Your task to perform on an android device: find snoozed emails in the gmail app Image 0: 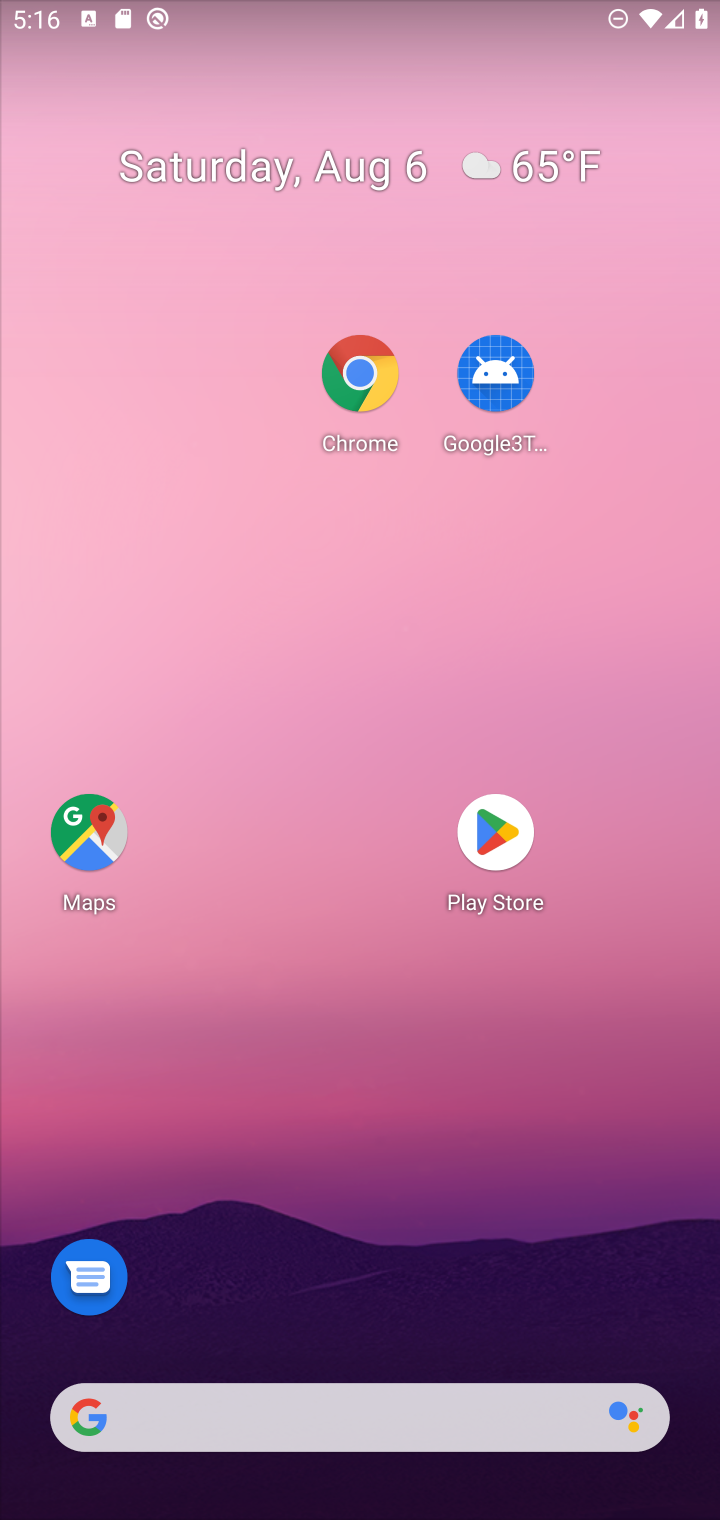
Step 0: click (533, 1414)
Your task to perform on an android device: find snoozed emails in the gmail app Image 1: 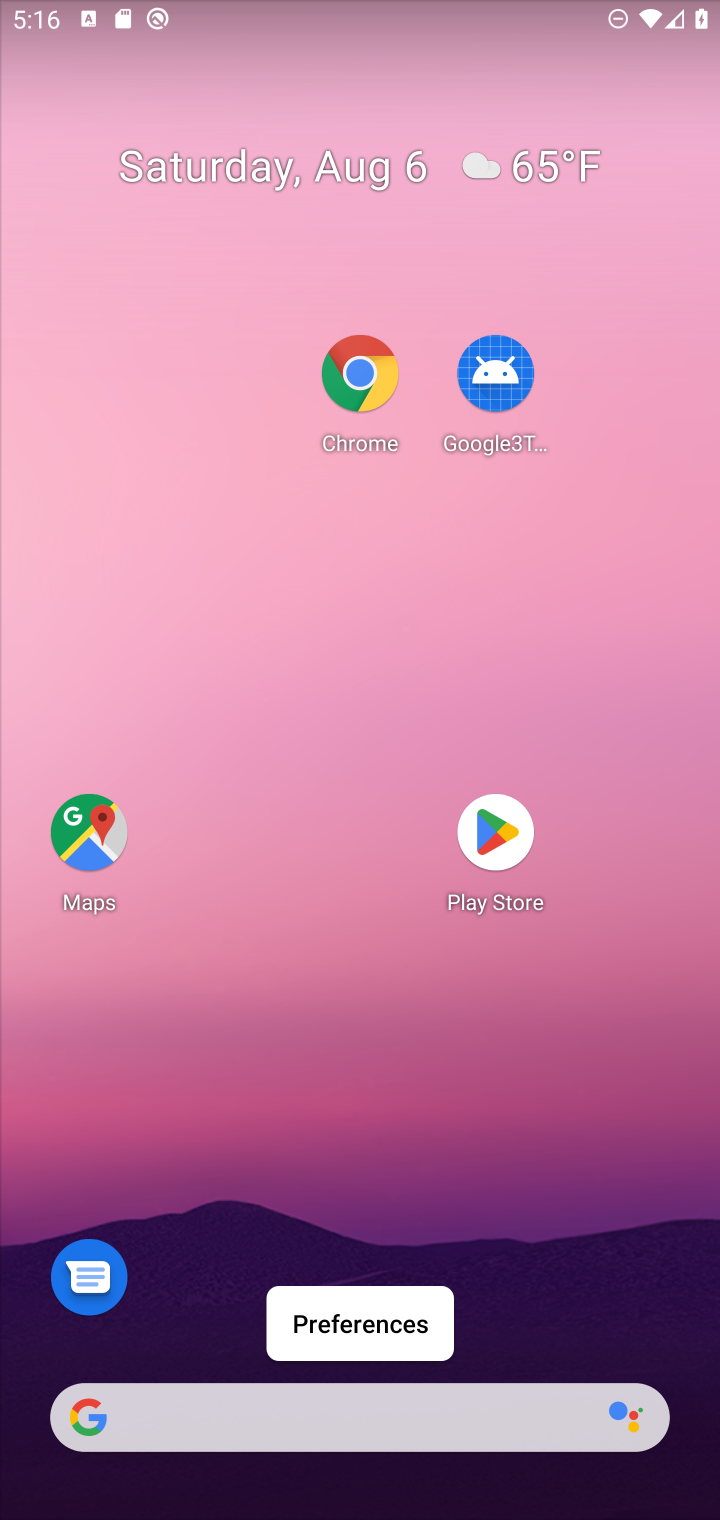
Step 1: drag from (510, 1322) to (561, 110)
Your task to perform on an android device: find snoozed emails in the gmail app Image 2: 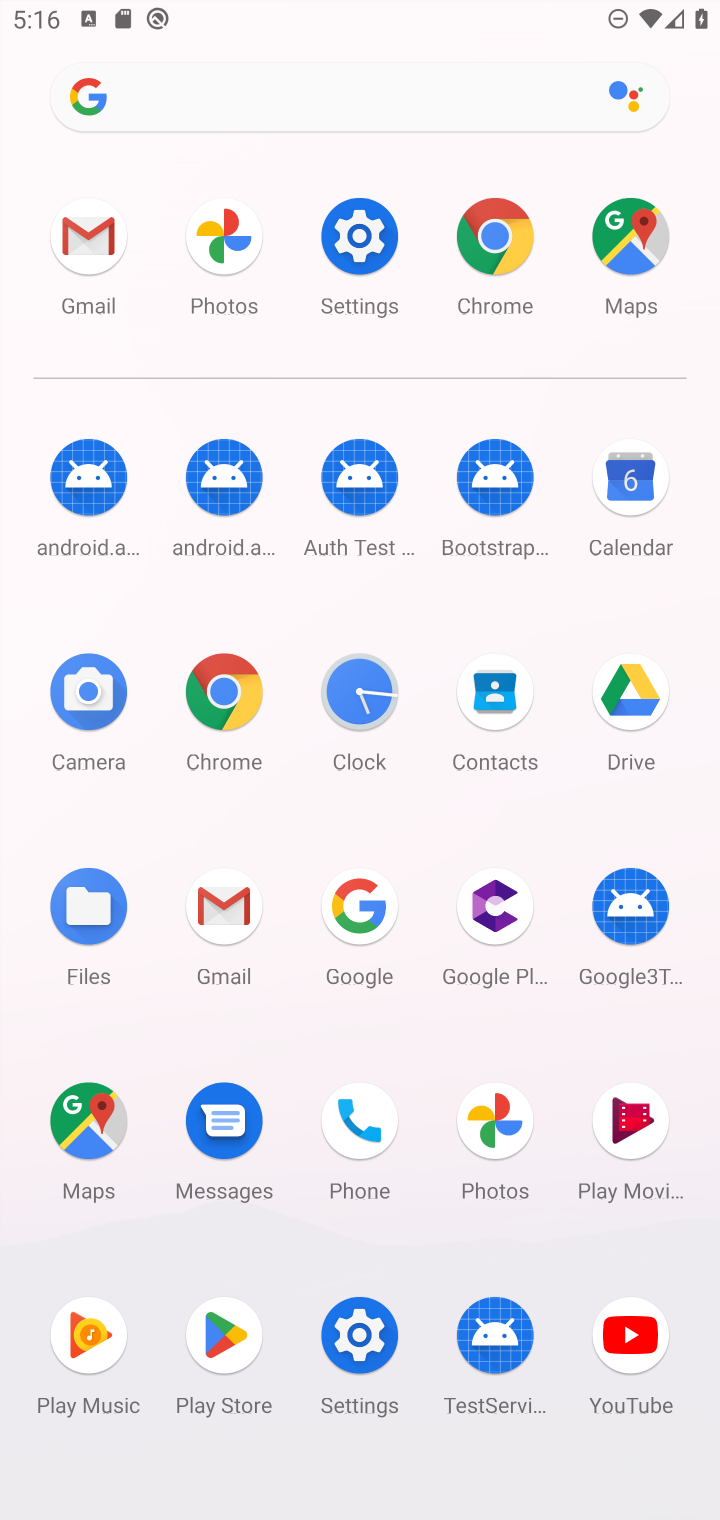
Step 2: click (219, 909)
Your task to perform on an android device: find snoozed emails in the gmail app Image 3: 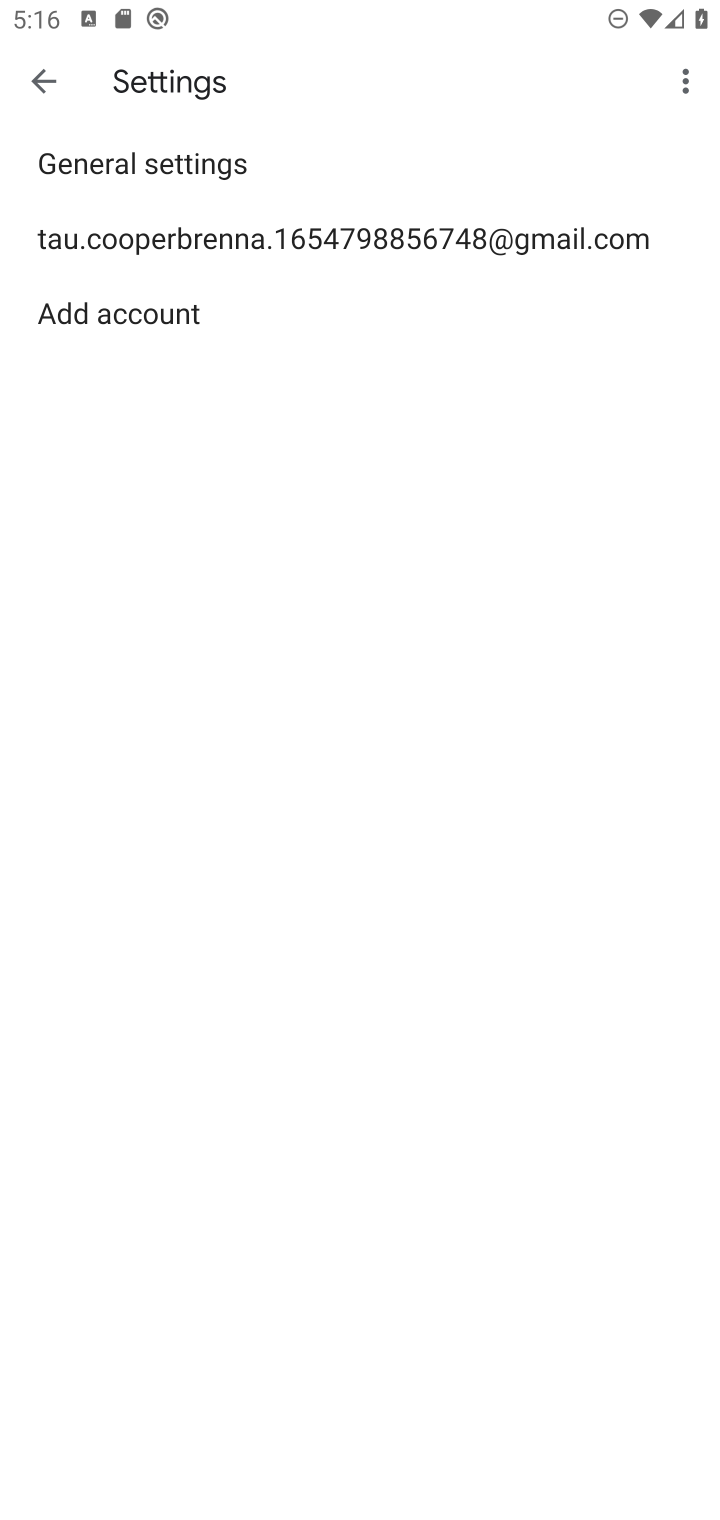
Step 3: press back button
Your task to perform on an android device: find snoozed emails in the gmail app Image 4: 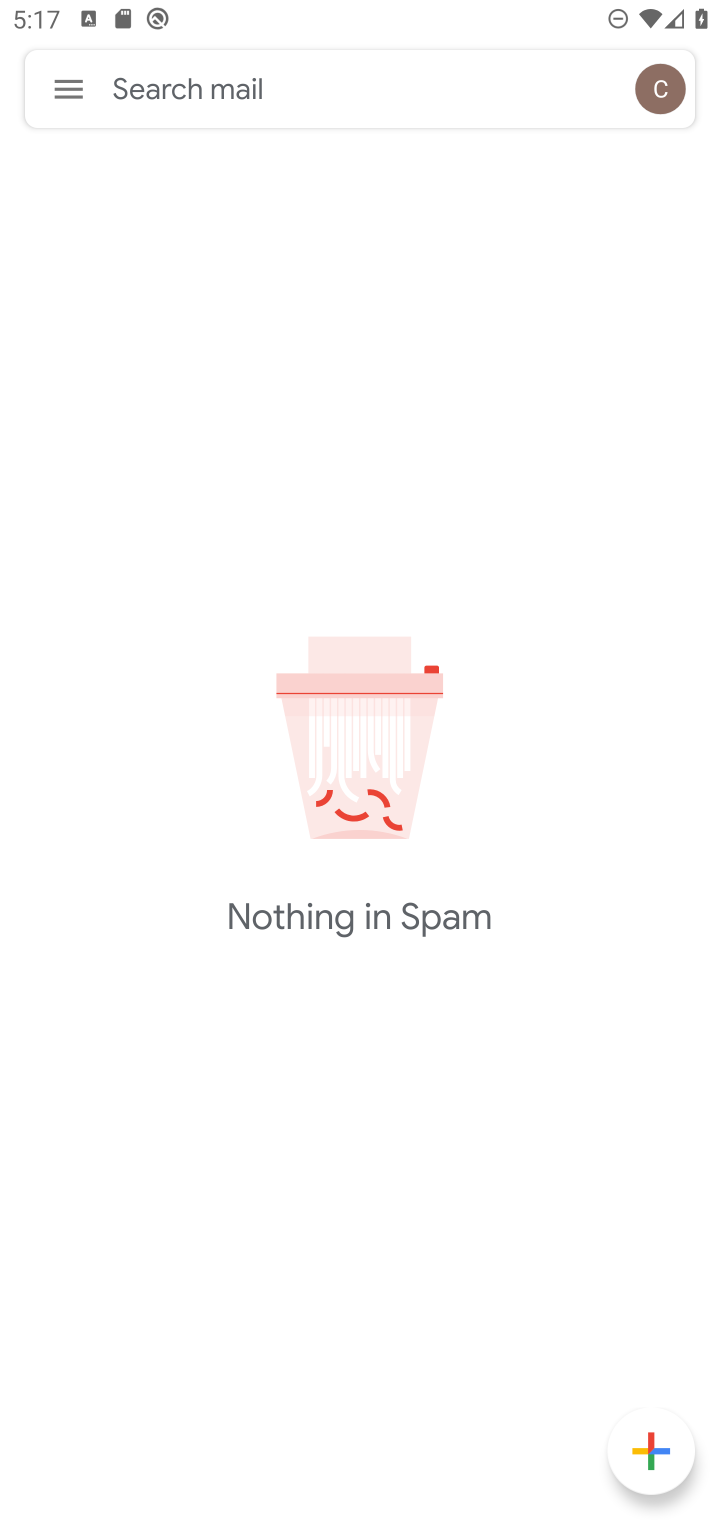
Step 4: click (68, 90)
Your task to perform on an android device: find snoozed emails in the gmail app Image 5: 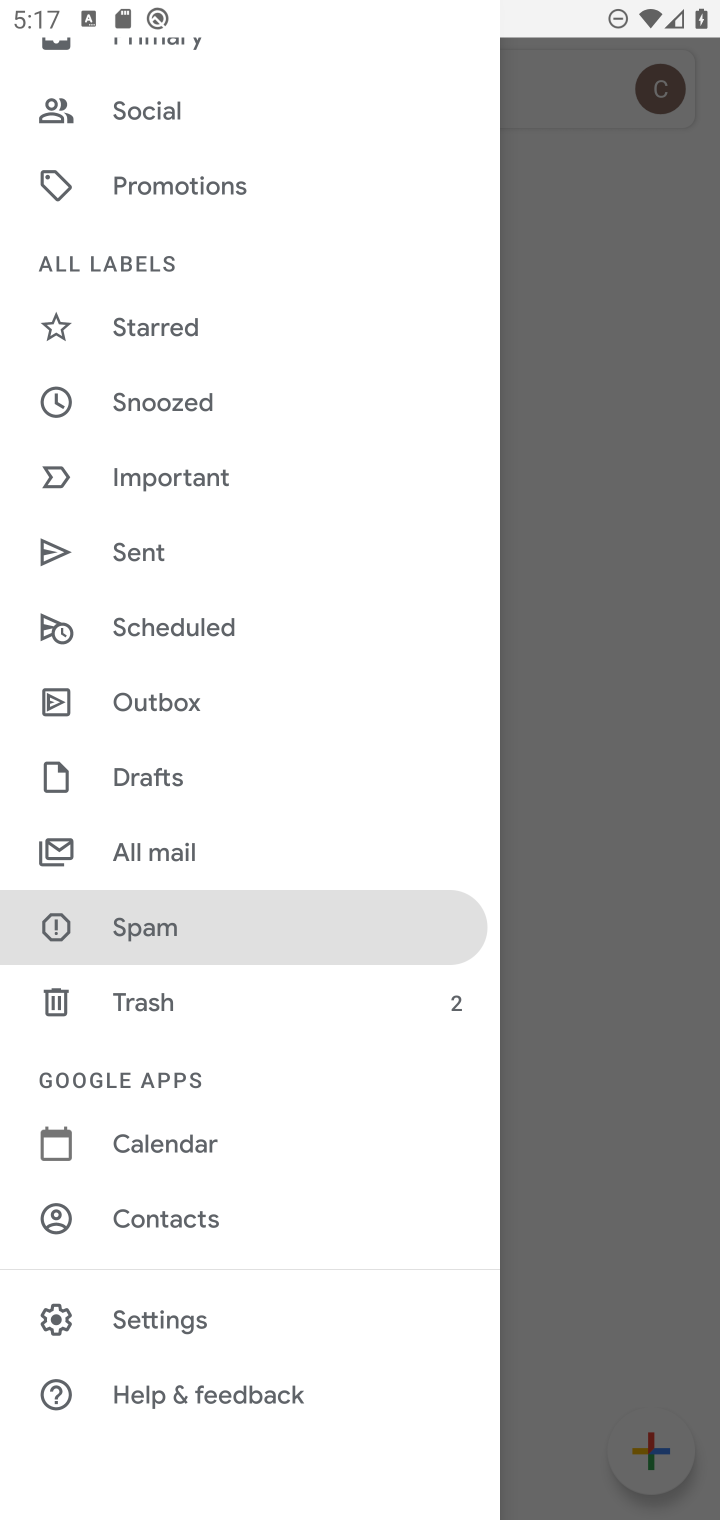
Step 5: click (144, 395)
Your task to perform on an android device: find snoozed emails in the gmail app Image 6: 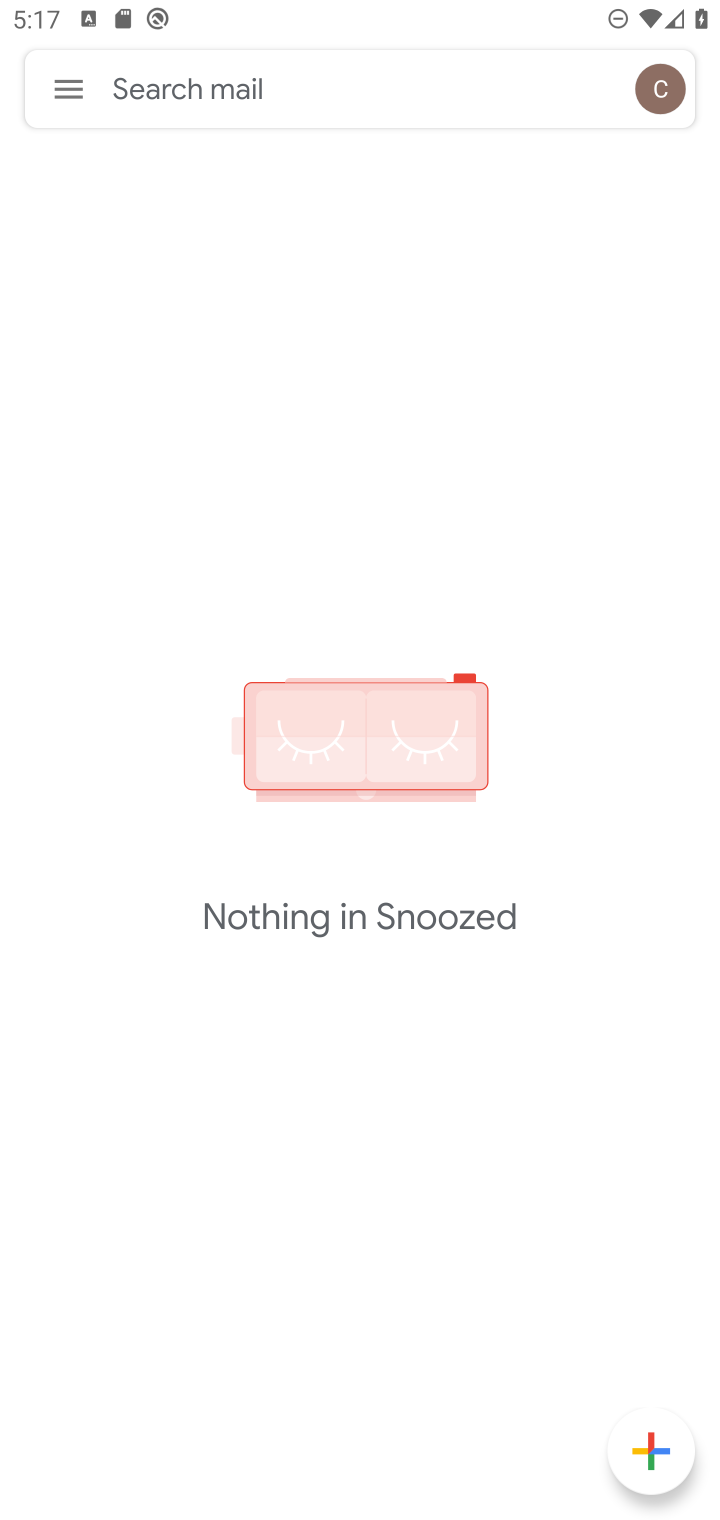
Step 6: task complete